Your task to perform on an android device: stop showing notifications on the lock screen Image 0: 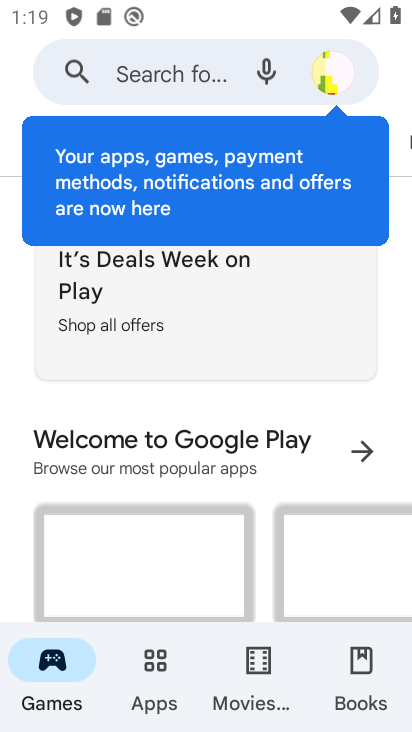
Step 0: press home button
Your task to perform on an android device: stop showing notifications on the lock screen Image 1: 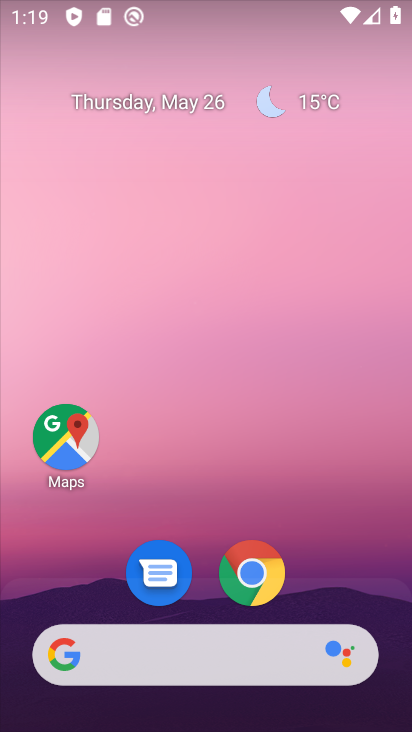
Step 1: drag from (351, 548) to (365, 73)
Your task to perform on an android device: stop showing notifications on the lock screen Image 2: 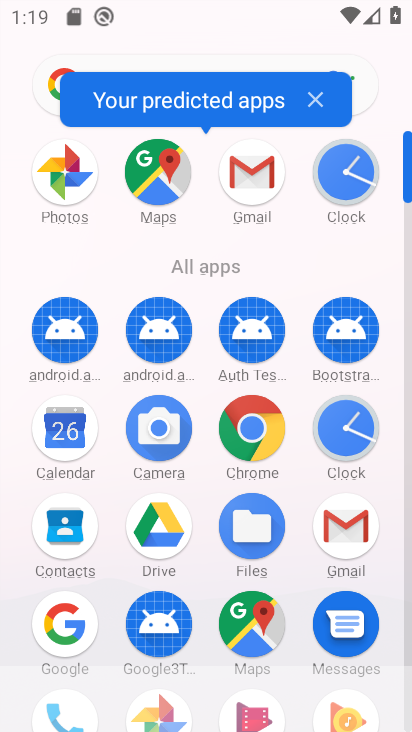
Step 2: drag from (215, 291) to (300, 4)
Your task to perform on an android device: stop showing notifications on the lock screen Image 3: 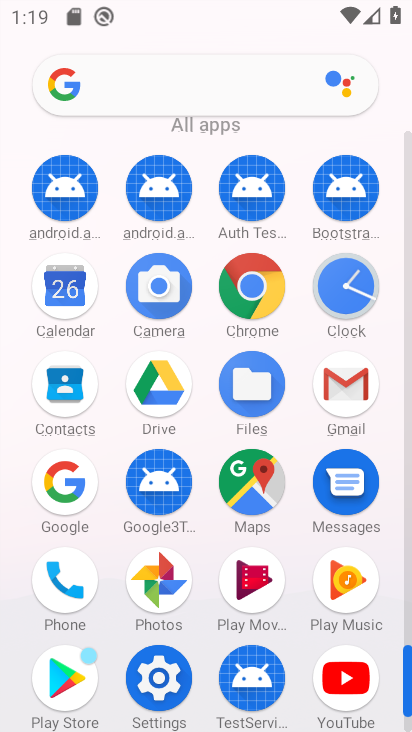
Step 3: click (180, 672)
Your task to perform on an android device: stop showing notifications on the lock screen Image 4: 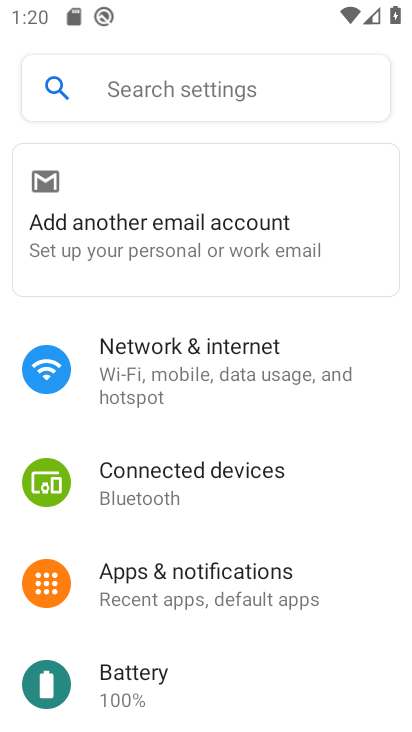
Step 4: click (197, 582)
Your task to perform on an android device: stop showing notifications on the lock screen Image 5: 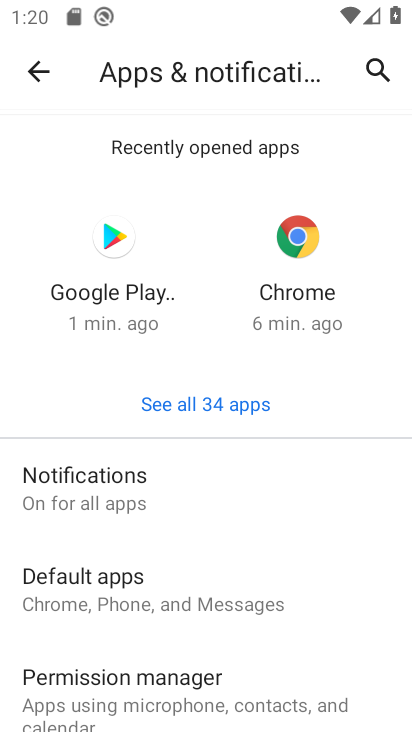
Step 5: drag from (216, 633) to (203, 516)
Your task to perform on an android device: stop showing notifications on the lock screen Image 6: 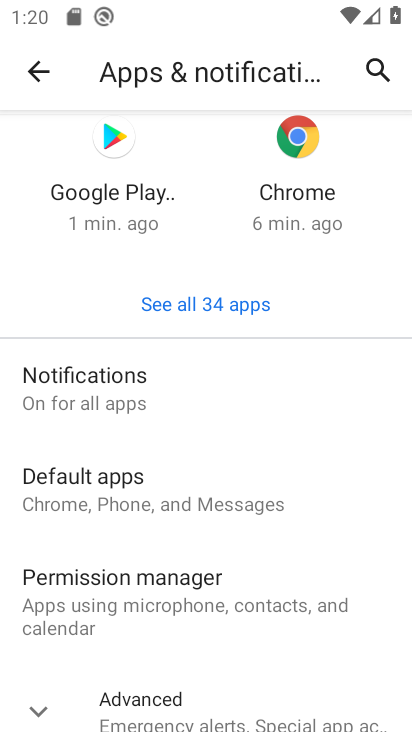
Step 6: click (177, 383)
Your task to perform on an android device: stop showing notifications on the lock screen Image 7: 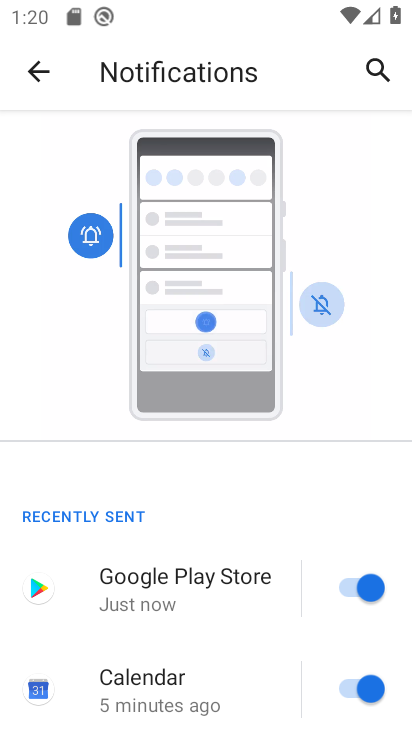
Step 7: drag from (249, 640) to (230, 284)
Your task to perform on an android device: stop showing notifications on the lock screen Image 8: 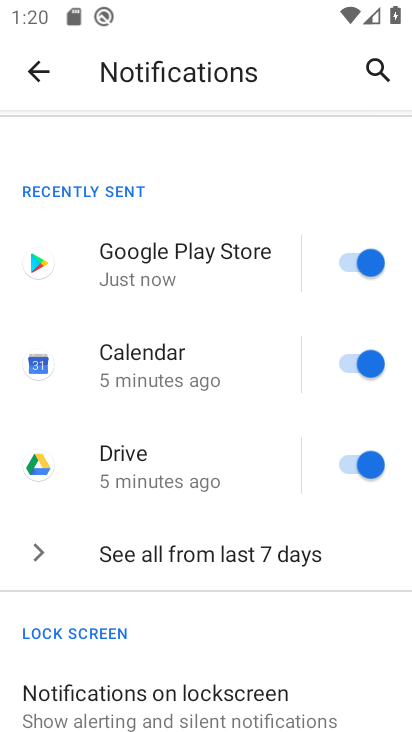
Step 8: click (228, 708)
Your task to perform on an android device: stop showing notifications on the lock screen Image 9: 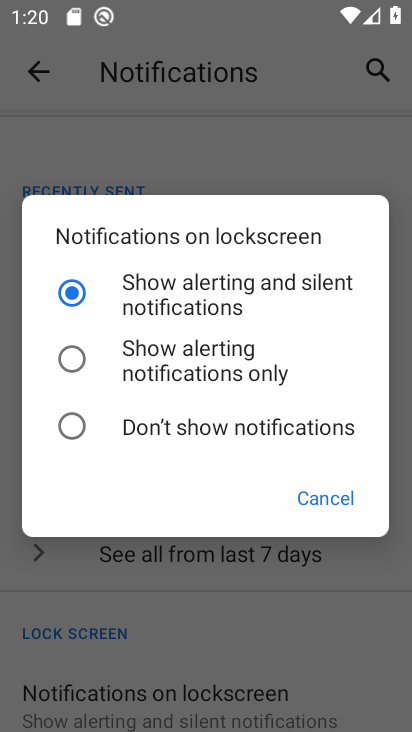
Step 9: click (205, 439)
Your task to perform on an android device: stop showing notifications on the lock screen Image 10: 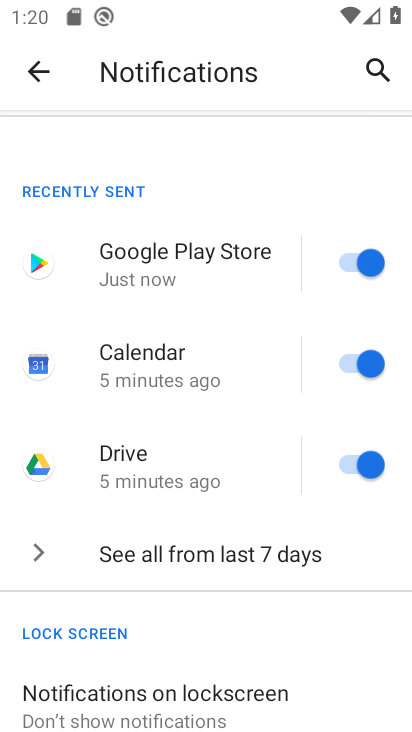
Step 10: task complete